Your task to perform on an android device: Open maps Image 0: 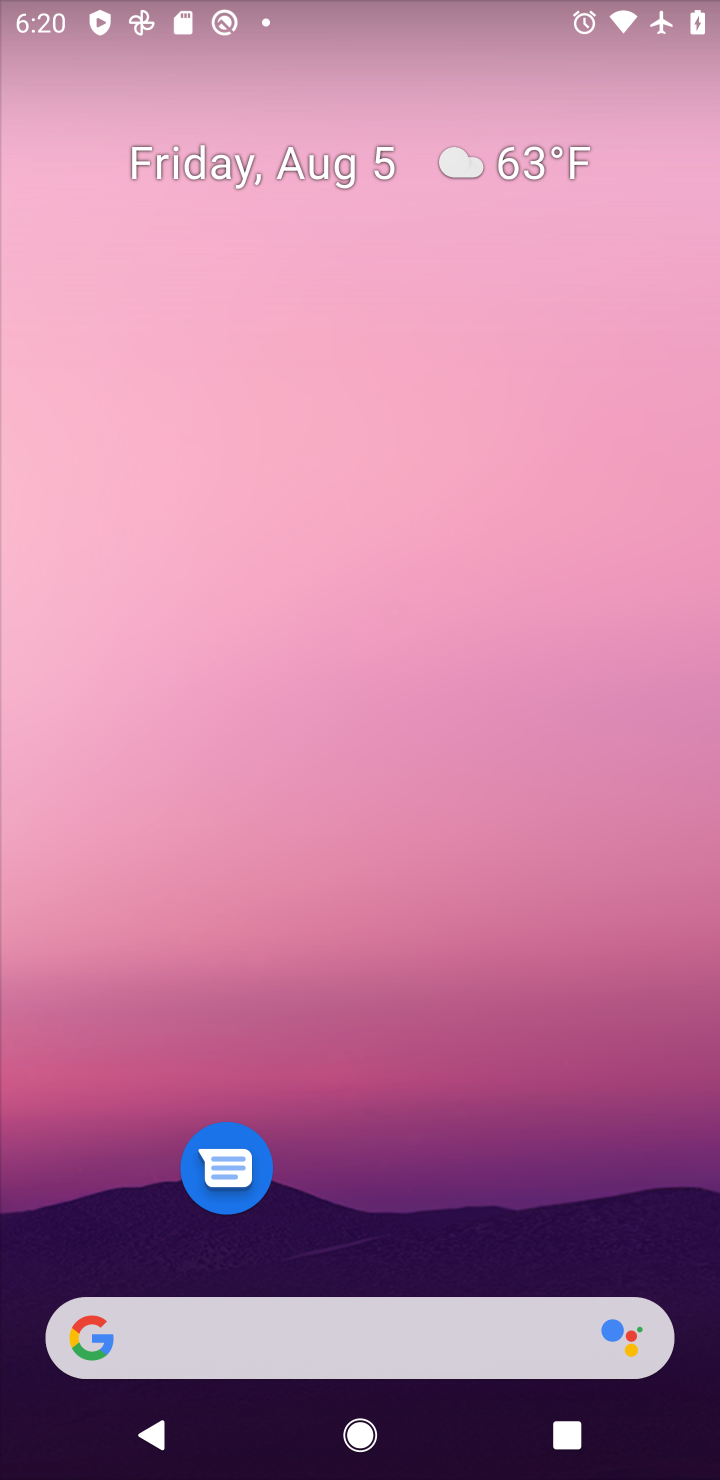
Step 0: press home button
Your task to perform on an android device: Open maps Image 1: 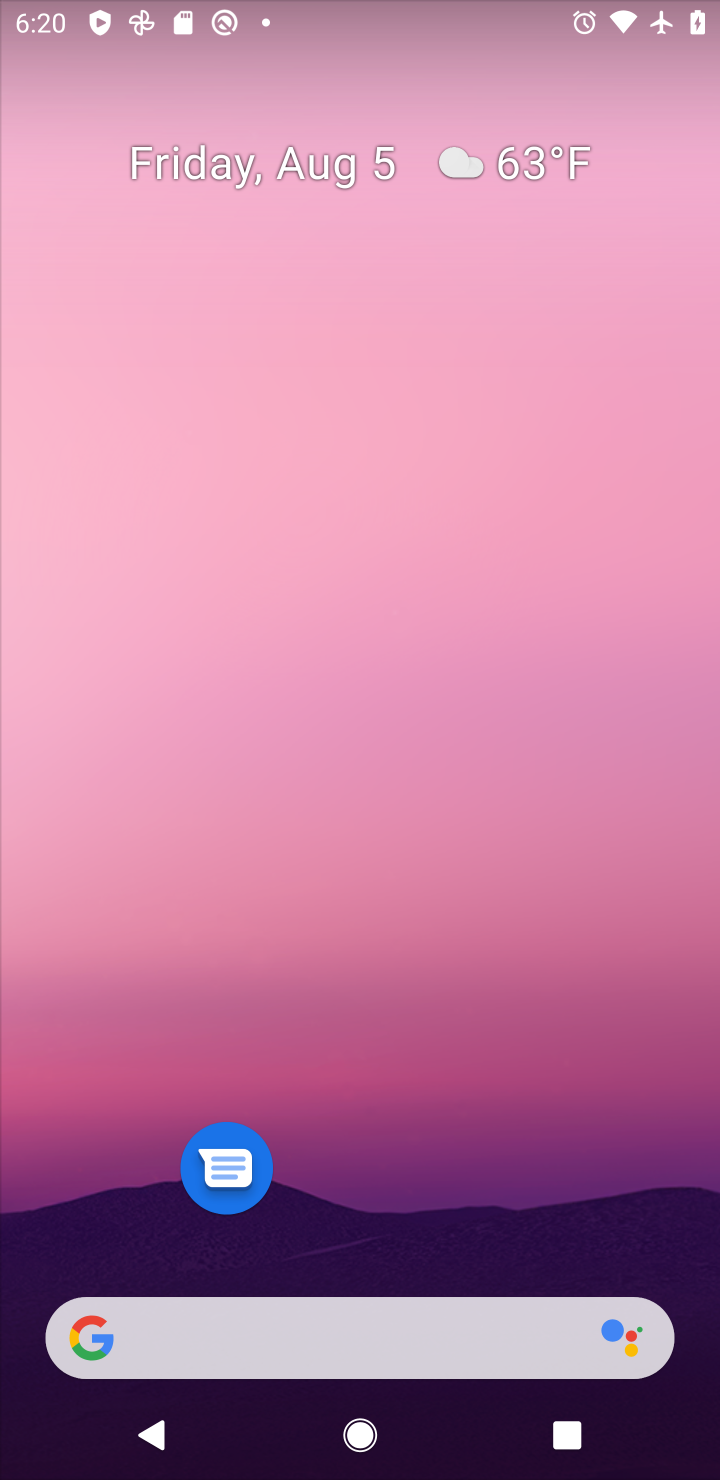
Step 1: drag from (478, 1244) to (492, 411)
Your task to perform on an android device: Open maps Image 2: 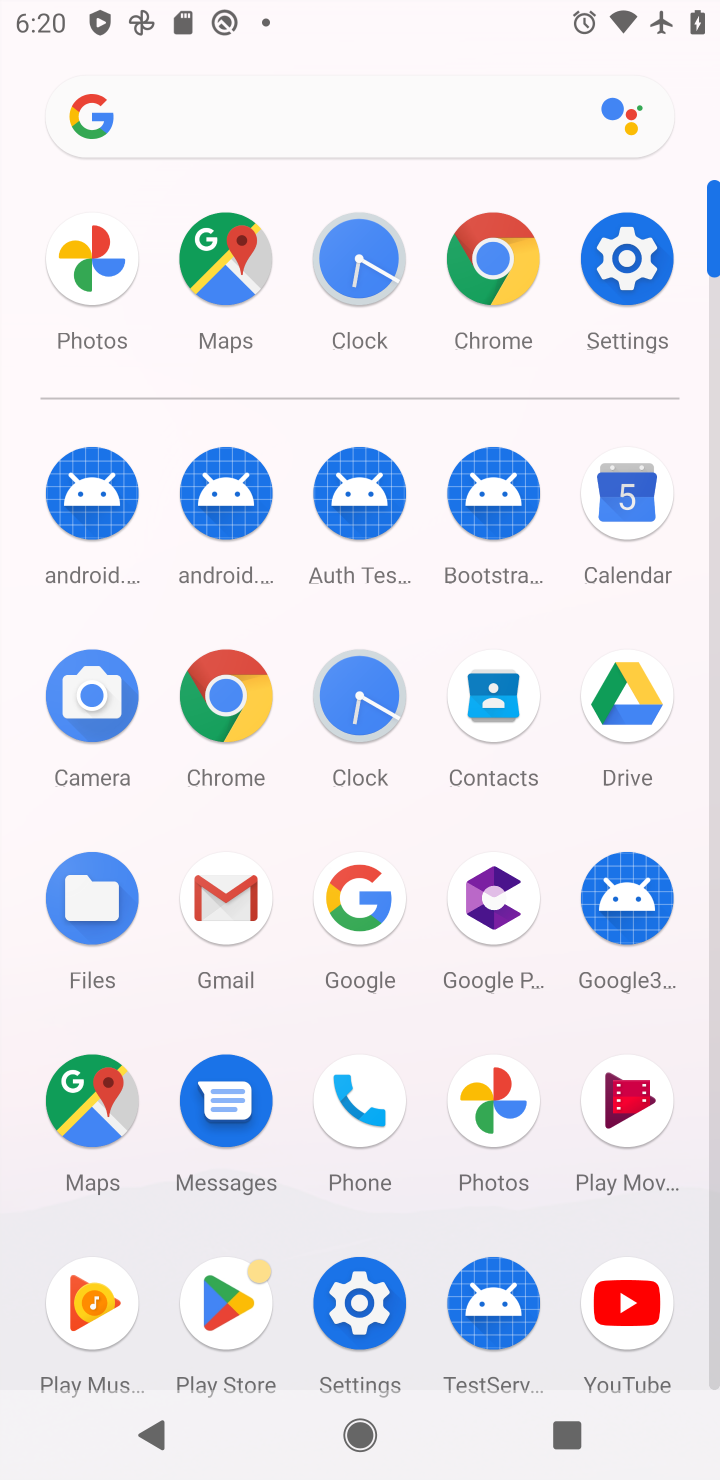
Step 2: click (92, 1088)
Your task to perform on an android device: Open maps Image 3: 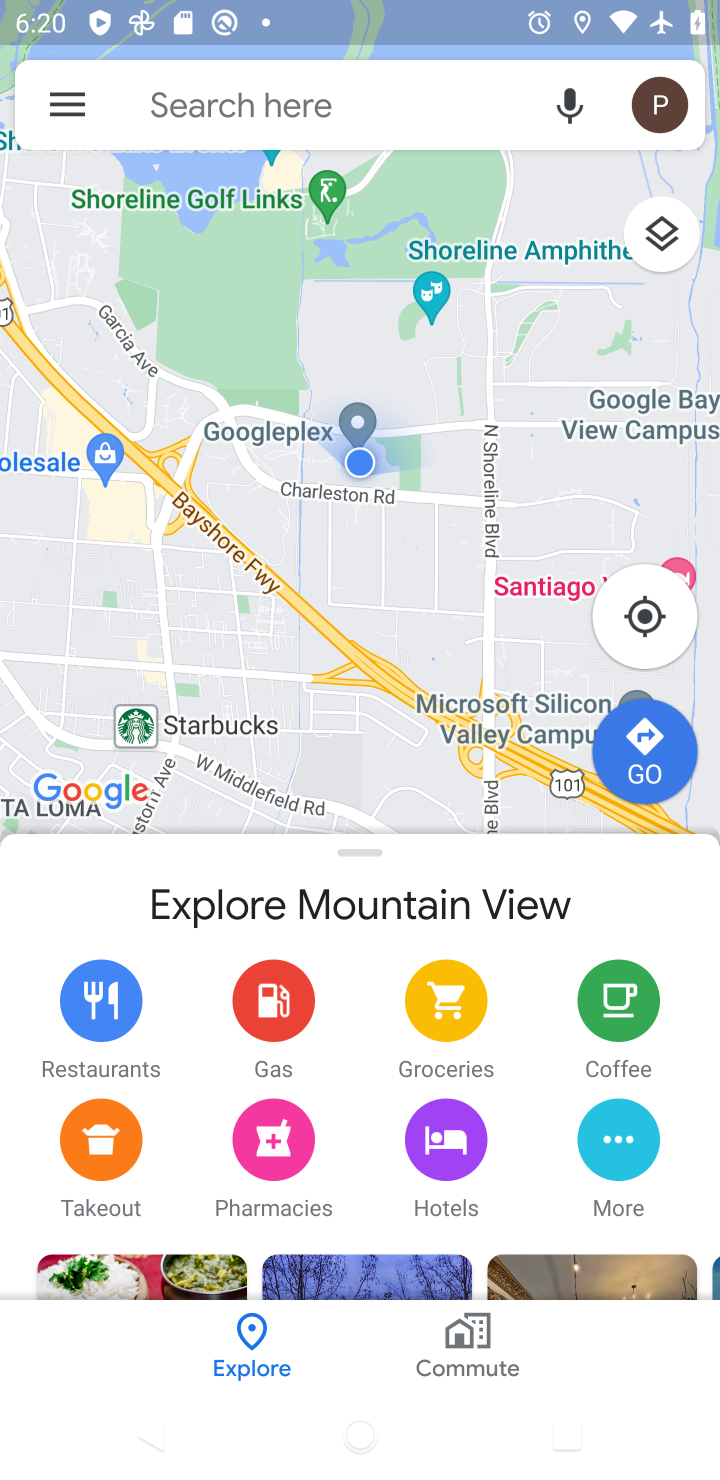
Step 3: task complete